Your task to perform on an android device: Google the capital of the United States Image 0: 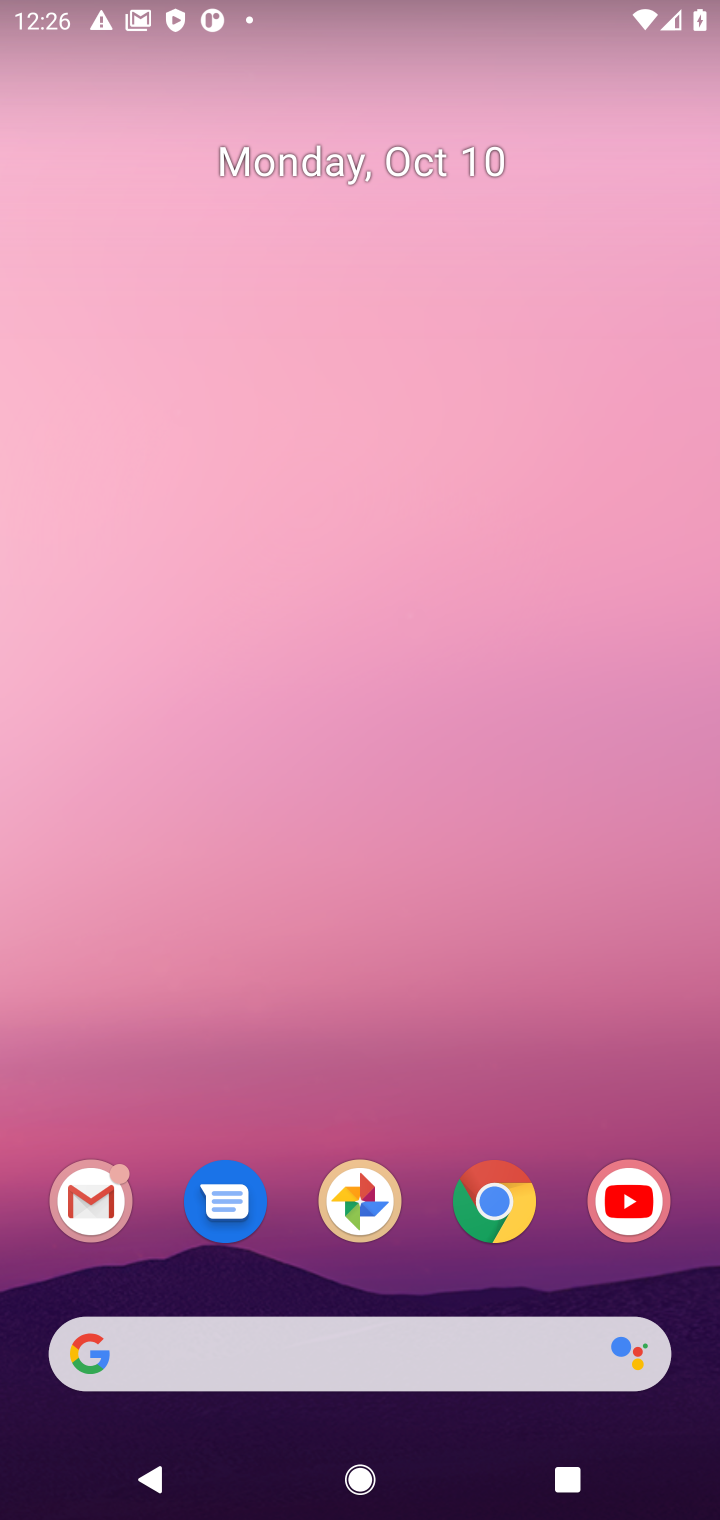
Step 0: click (285, 1345)
Your task to perform on an android device: Google the capital of the United States Image 1: 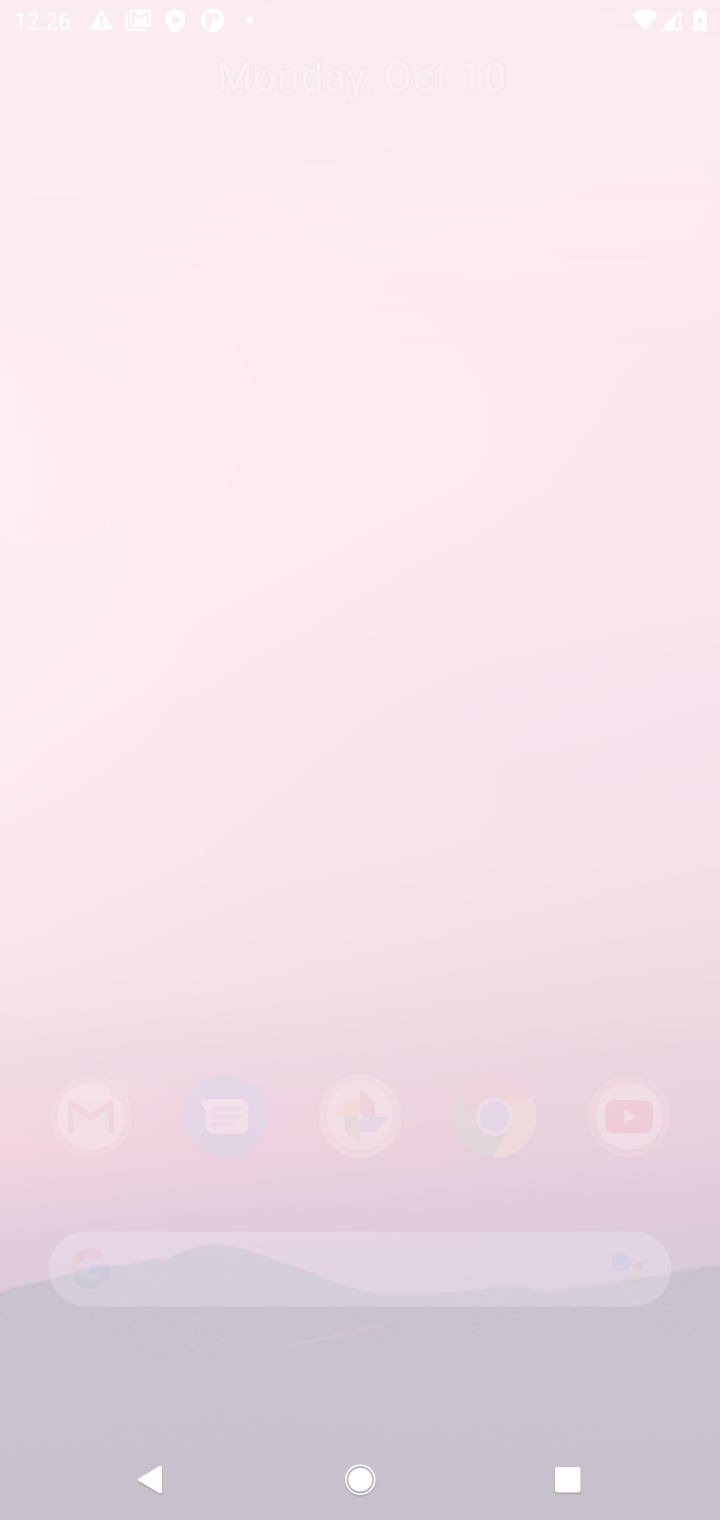
Step 1: click (287, 1361)
Your task to perform on an android device: Google the capital of the United States Image 2: 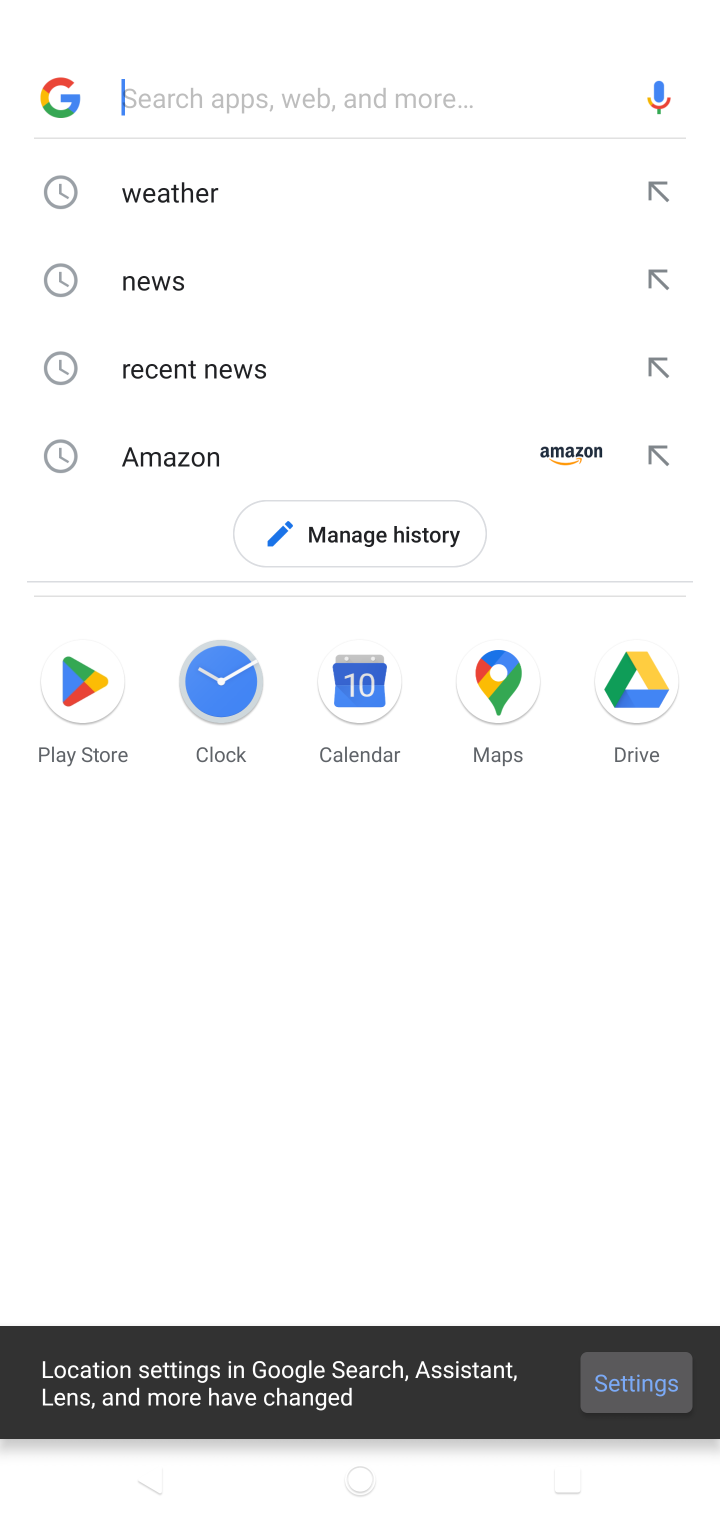
Step 2: click (252, 103)
Your task to perform on an android device: Google the capital of the United States Image 3: 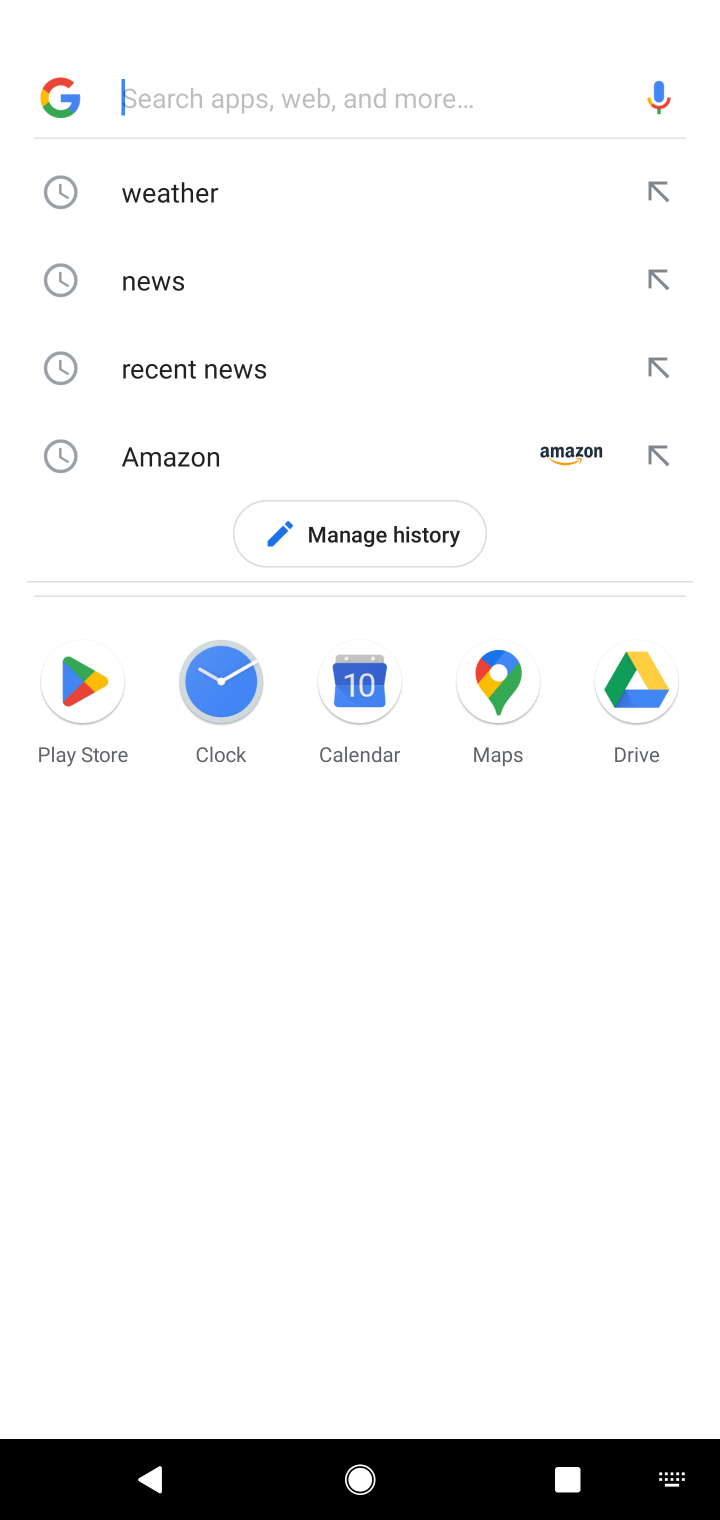
Step 3: type "capital of the United States"
Your task to perform on an android device: Google the capital of the United States Image 4: 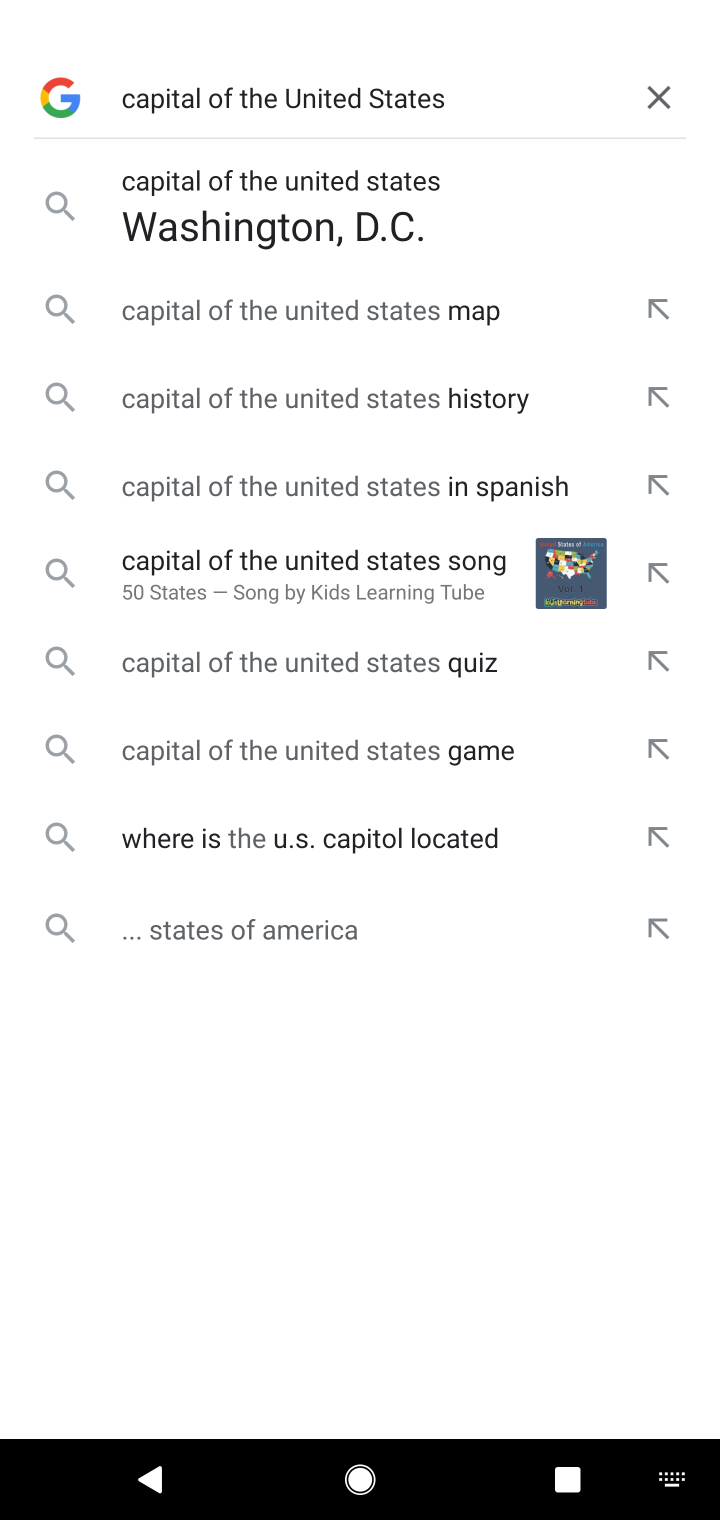
Step 4: click (281, 244)
Your task to perform on an android device: Google the capital of the United States Image 5: 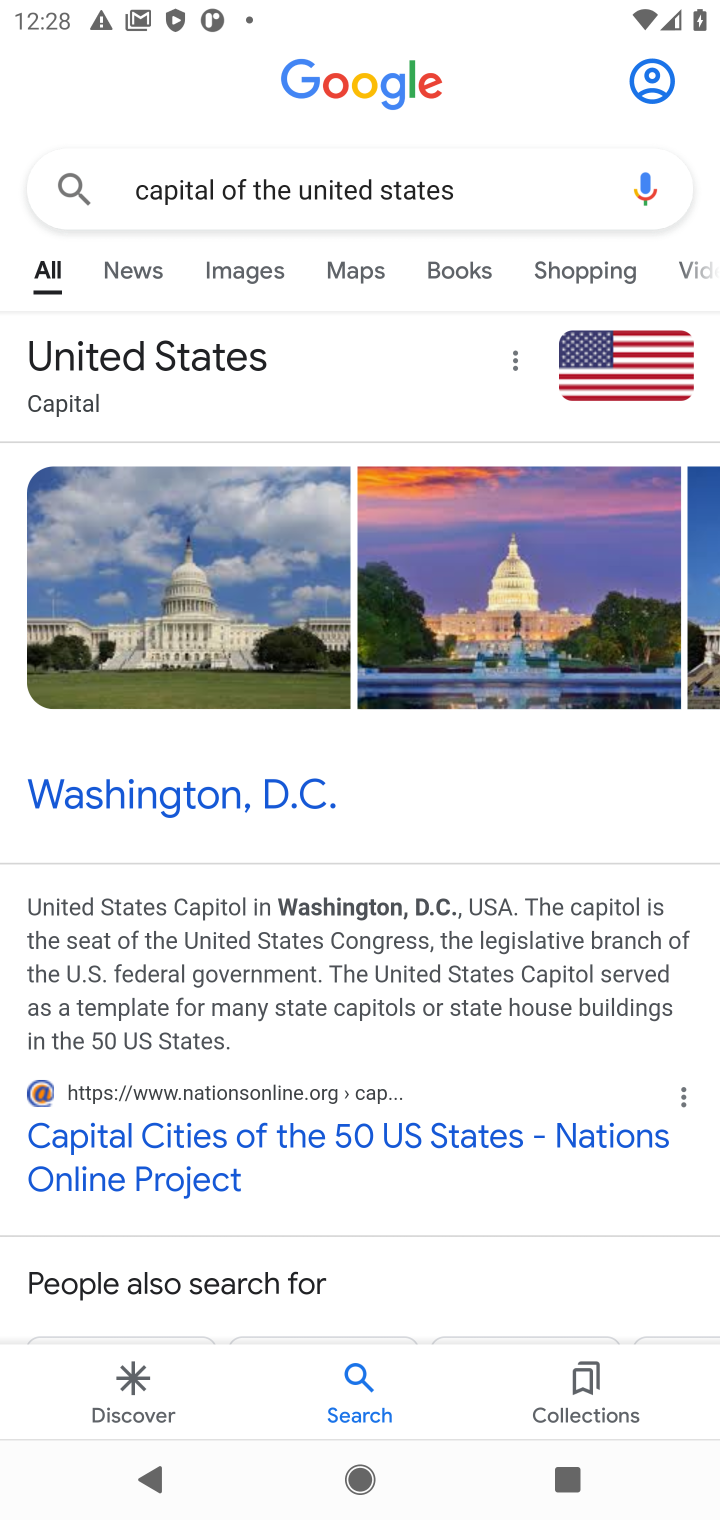
Step 5: click (236, 794)
Your task to perform on an android device: Google the capital of the United States Image 6: 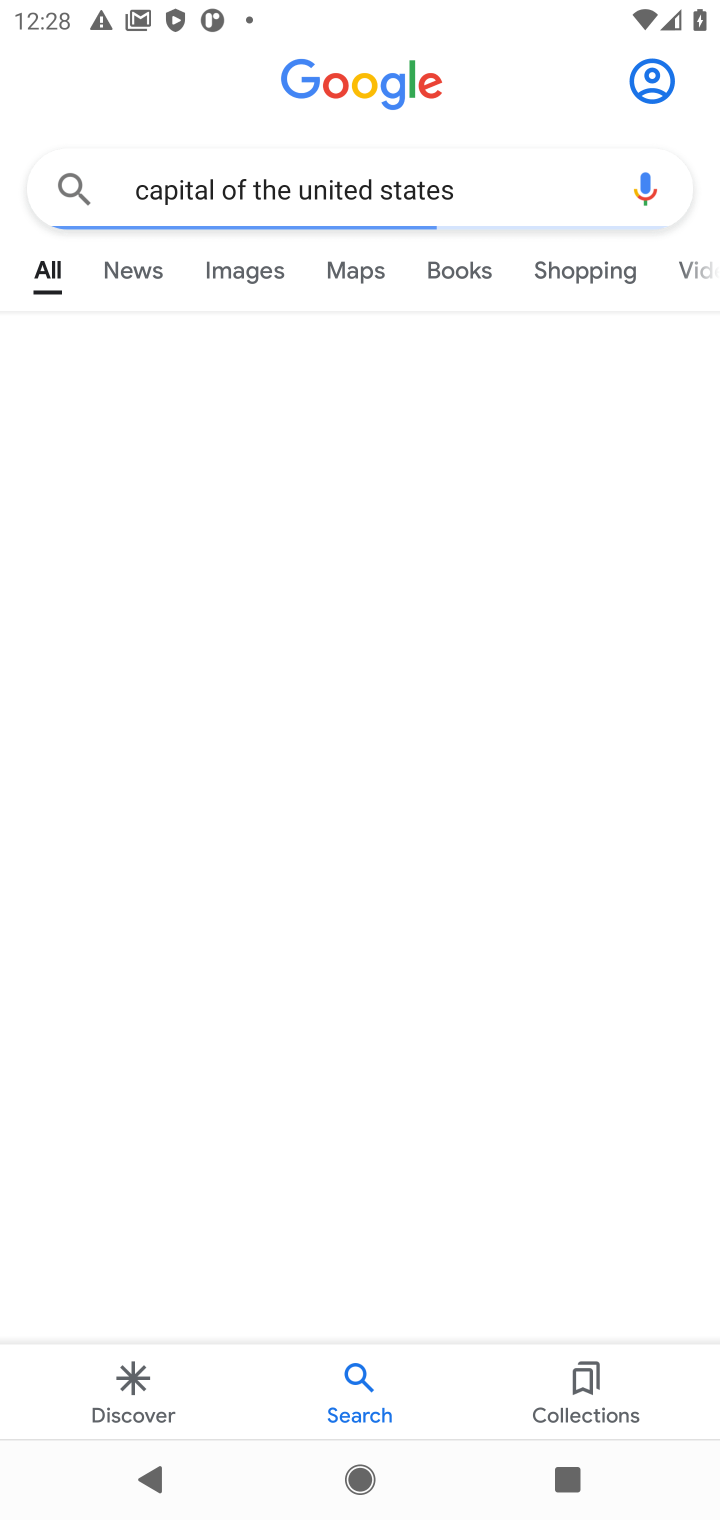
Step 6: click (318, 750)
Your task to perform on an android device: Google the capital of the United States Image 7: 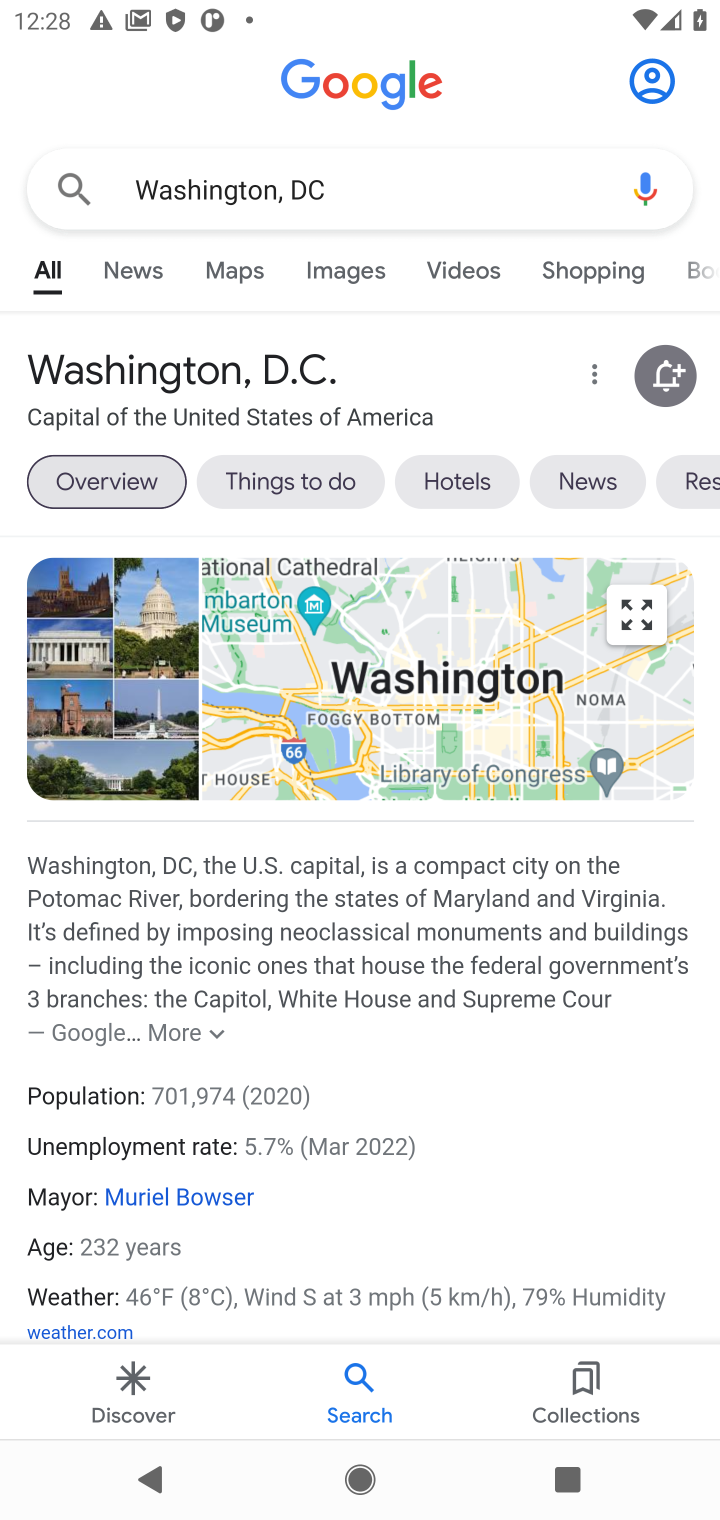
Step 7: task complete